Your task to perform on an android device: Open Wikipedia Image 0: 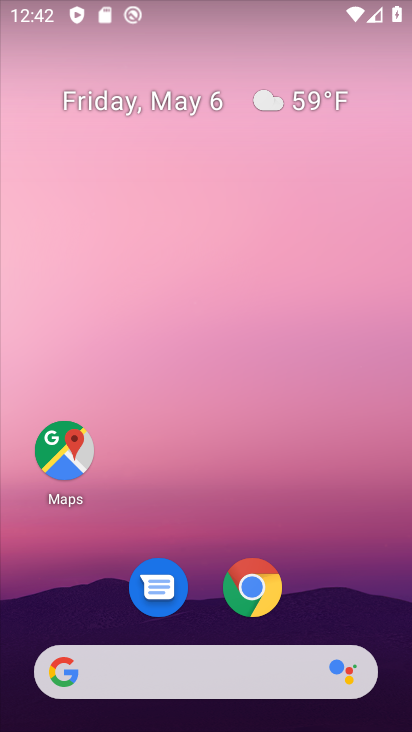
Step 0: drag from (239, 620) to (315, 84)
Your task to perform on an android device: Open Wikipedia Image 1: 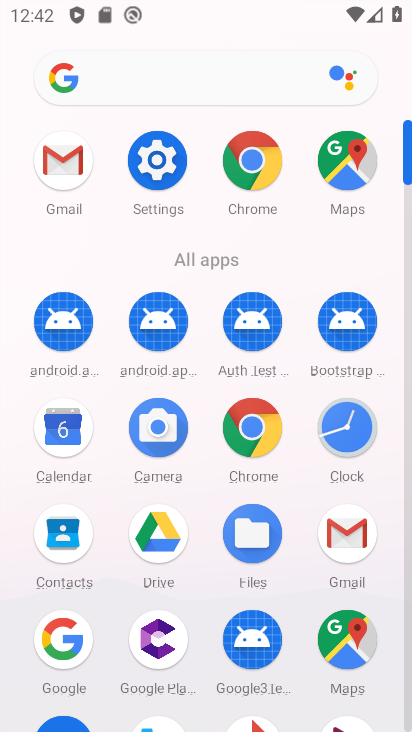
Step 1: click (255, 186)
Your task to perform on an android device: Open Wikipedia Image 2: 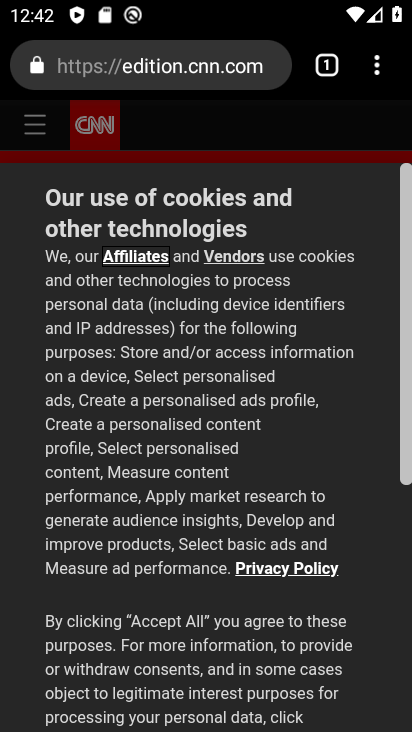
Step 2: click (210, 73)
Your task to perform on an android device: Open Wikipedia Image 3: 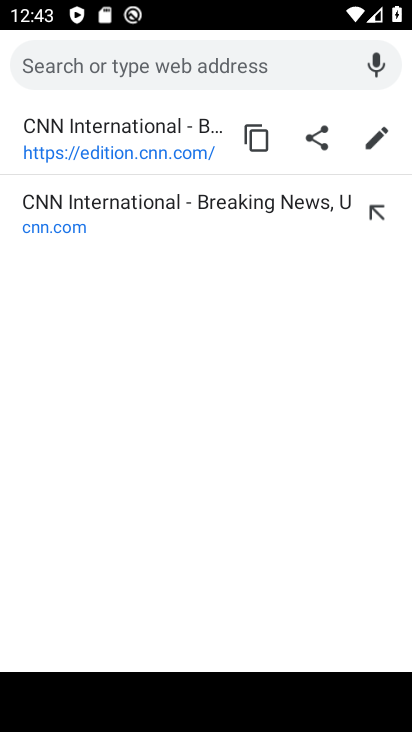
Step 3: type "wikipedia"
Your task to perform on an android device: Open Wikipedia Image 4: 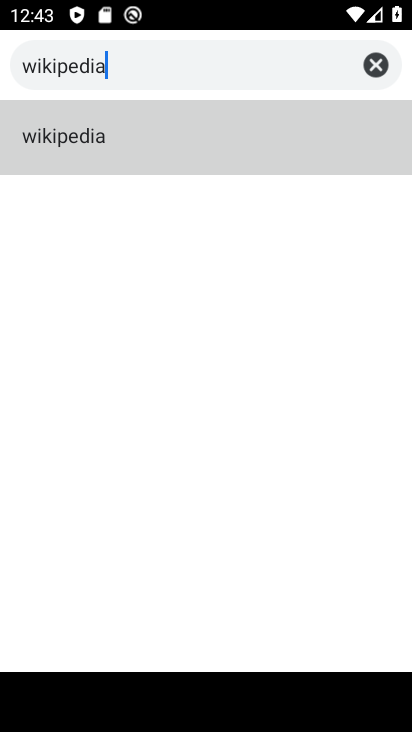
Step 4: click (262, 159)
Your task to perform on an android device: Open Wikipedia Image 5: 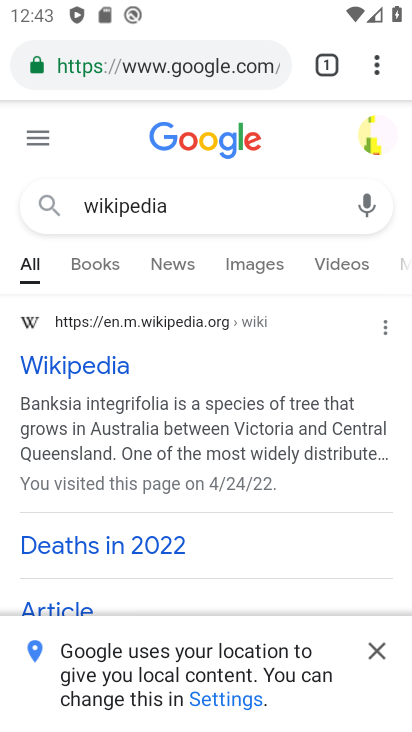
Step 5: click (101, 365)
Your task to perform on an android device: Open Wikipedia Image 6: 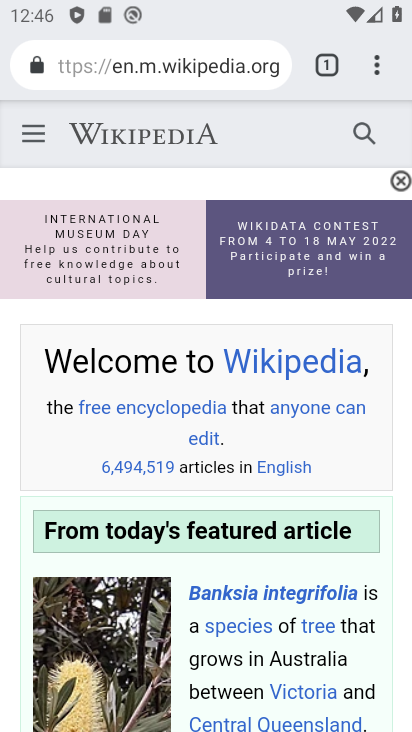
Step 6: task complete